Your task to perform on an android device: Open the map Image 0: 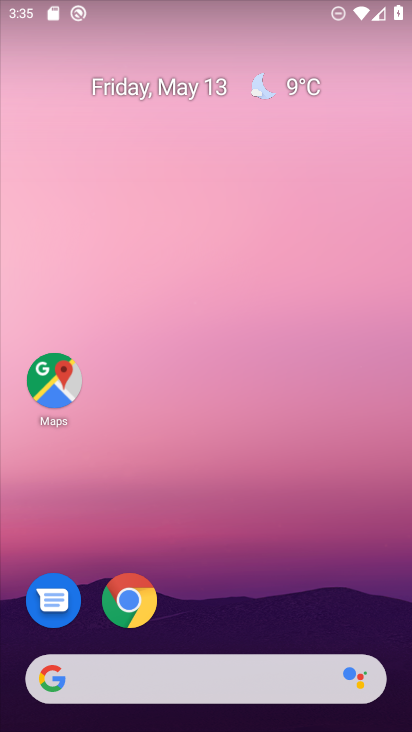
Step 0: drag from (216, 634) to (299, 295)
Your task to perform on an android device: Open the map Image 1: 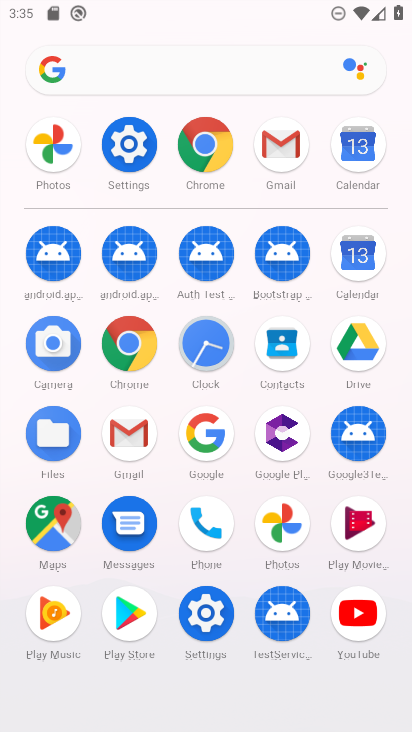
Step 1: click (53, 522)
Your task to perform on an android device: Open the map Image 2: 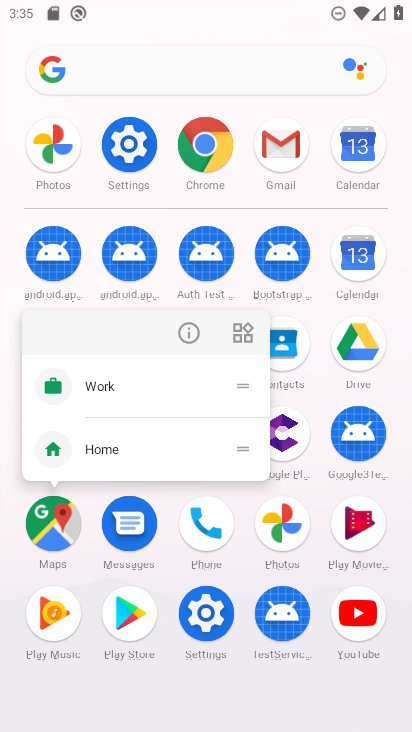
Step 2: click (195, 334)
Your task to perform on an android device: Open the map Image 3: 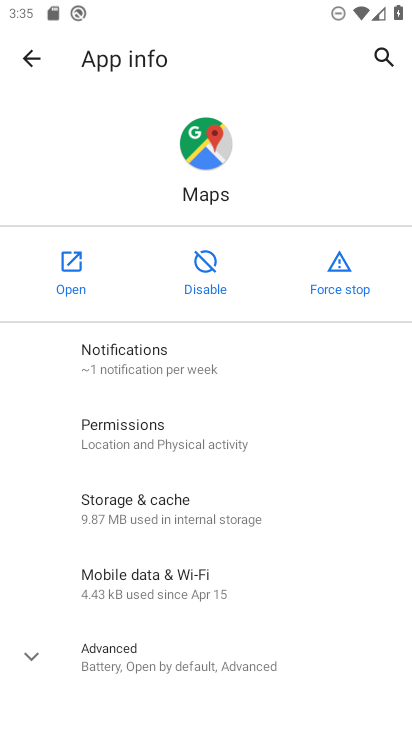
Step 3: click (71, 266)
Your task to perform on an android device: Open the map Image 4: 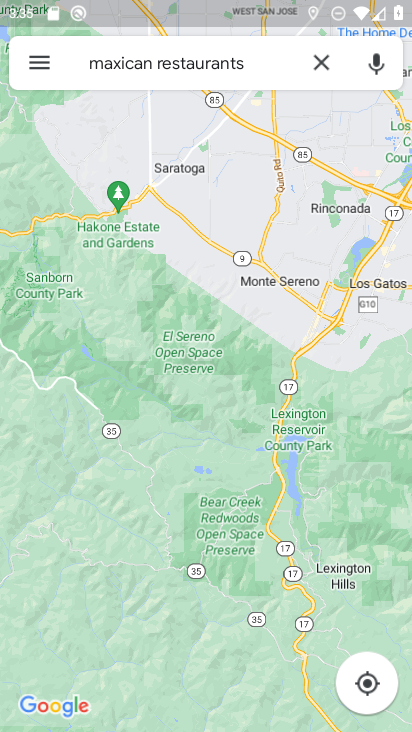
Step 4: click (48, 63)
Your task to perform on an android device: Open the map Image 5: 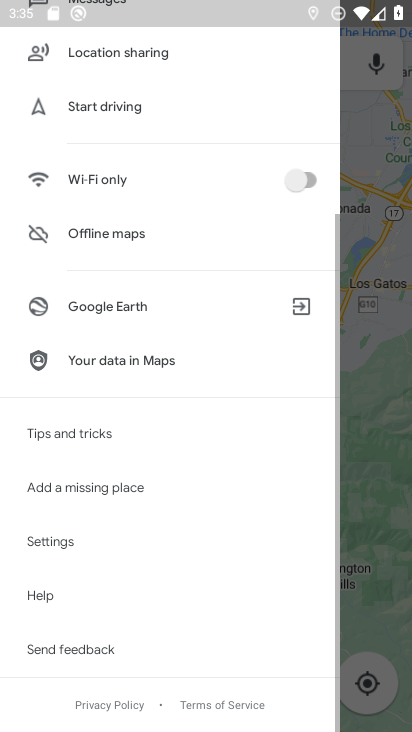
Step 5: task complete